Your task to perform on an android device: delete the emails in spam in the gmail app Image 0: 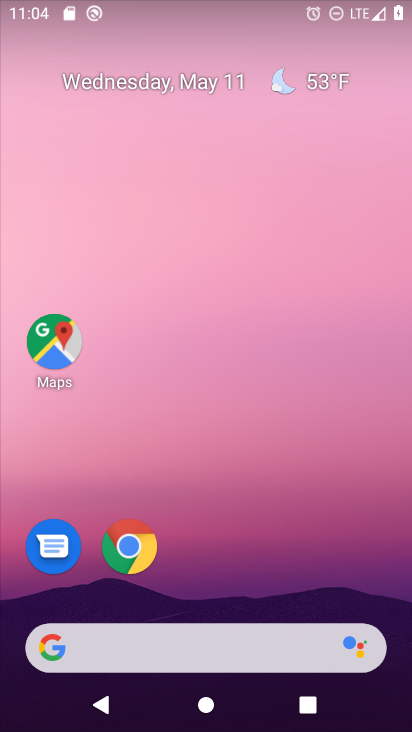
Step 0: drag from (403, 621) to (215, 19)
Your task to perform on an android device: delete the emails in spam in the gmail app Image 1: 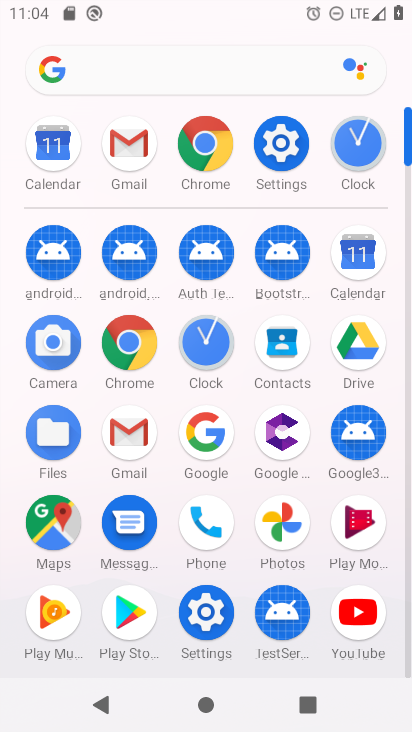
Step 1: click (138, 440)
Your task to perform on an android device: delete the emails in spam in the gmail app Image 2: 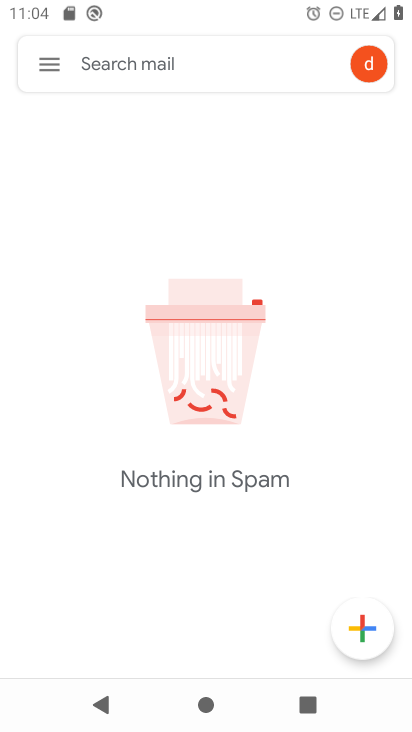
Step 2: click (45, 46)
Your task to perform on an android device: delete the emails in spam in the gmail app Image 3: 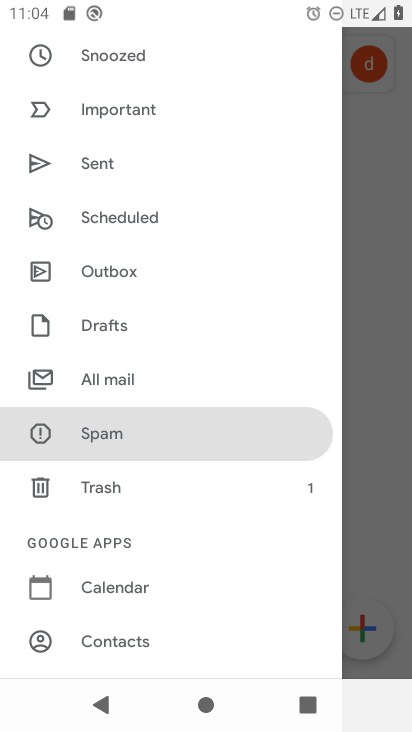
Step 3: click (256, 426)
Your task to perform on an android device: delete the emails in spam in the gmail app Image 4: 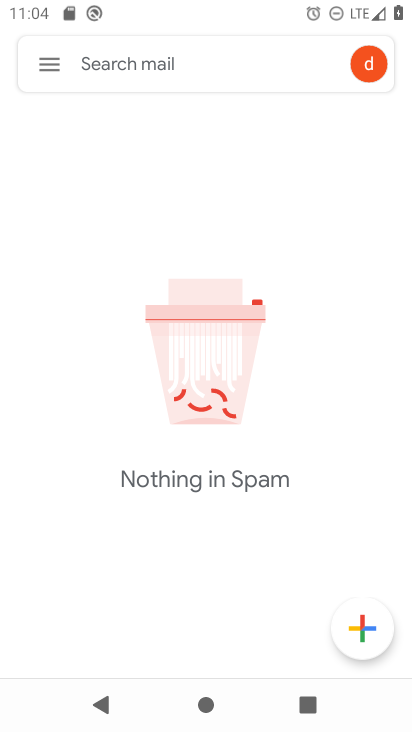
Step 4: task complete